Your task to perform on an android device: uninstall "NewsBreak: Local News & Alerts" Image 0: 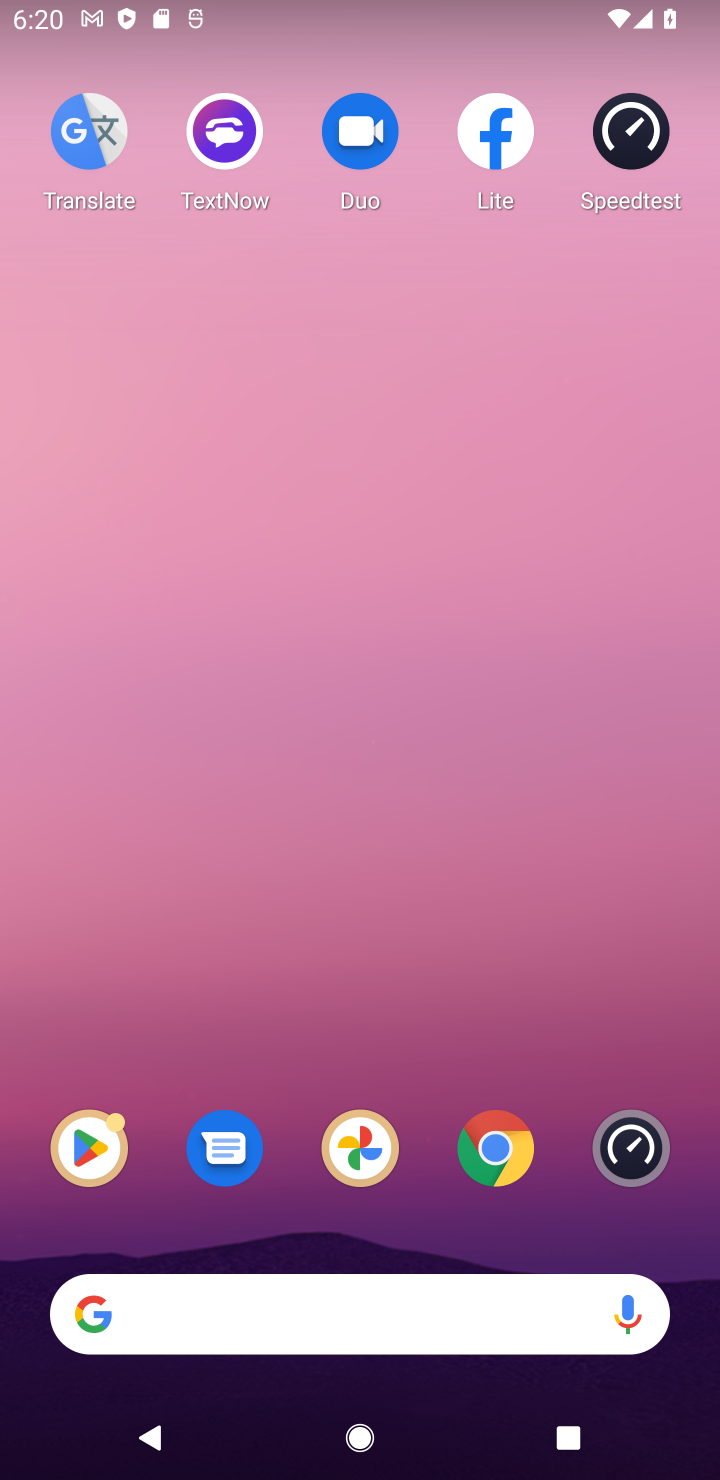
Step 0: drag from (611, 1073) to (319, 127)
Your task to perform on an android device: uninstall "NewsBreak: Local News & Alerts" Image 1: 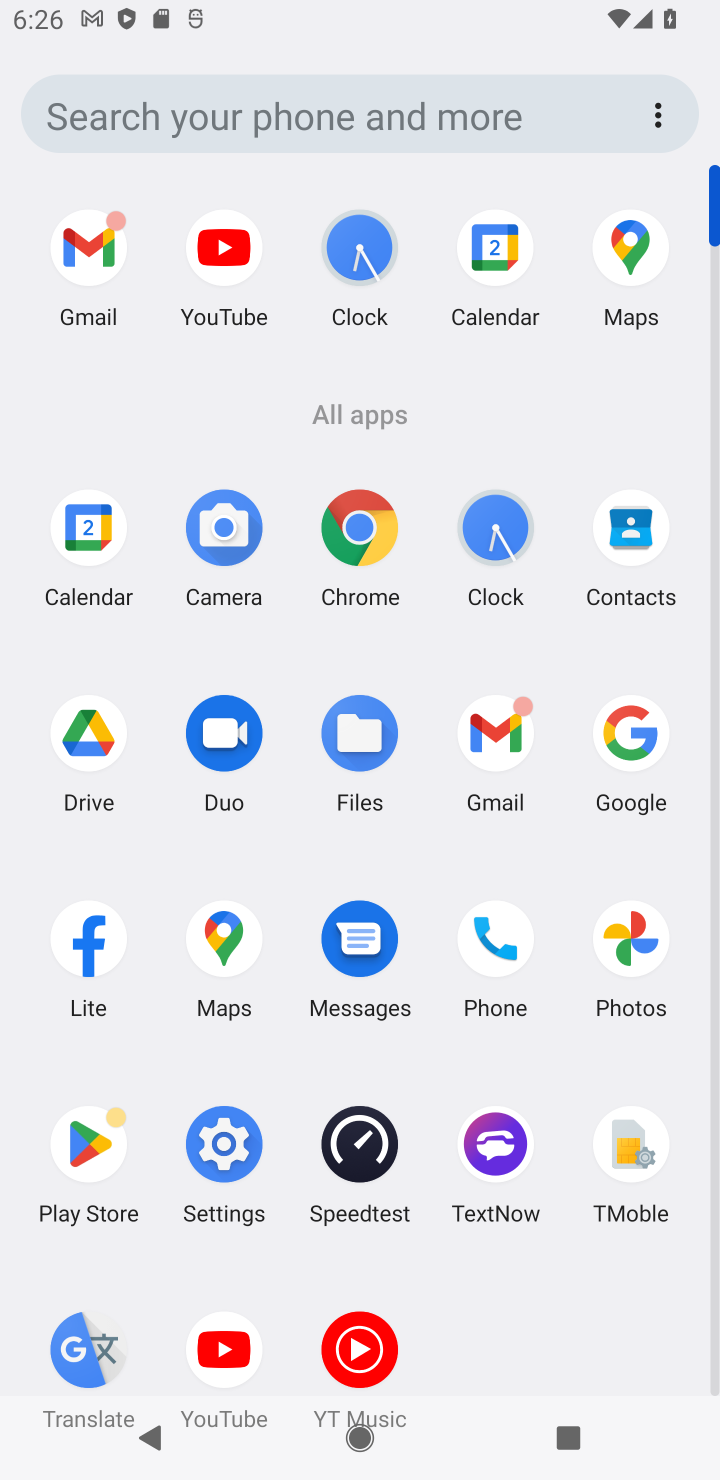
Step 1: click (78, 1129)
Your task to perform on an android device: uninstall "NewsBreak: Local News & Alerts" Image 2: 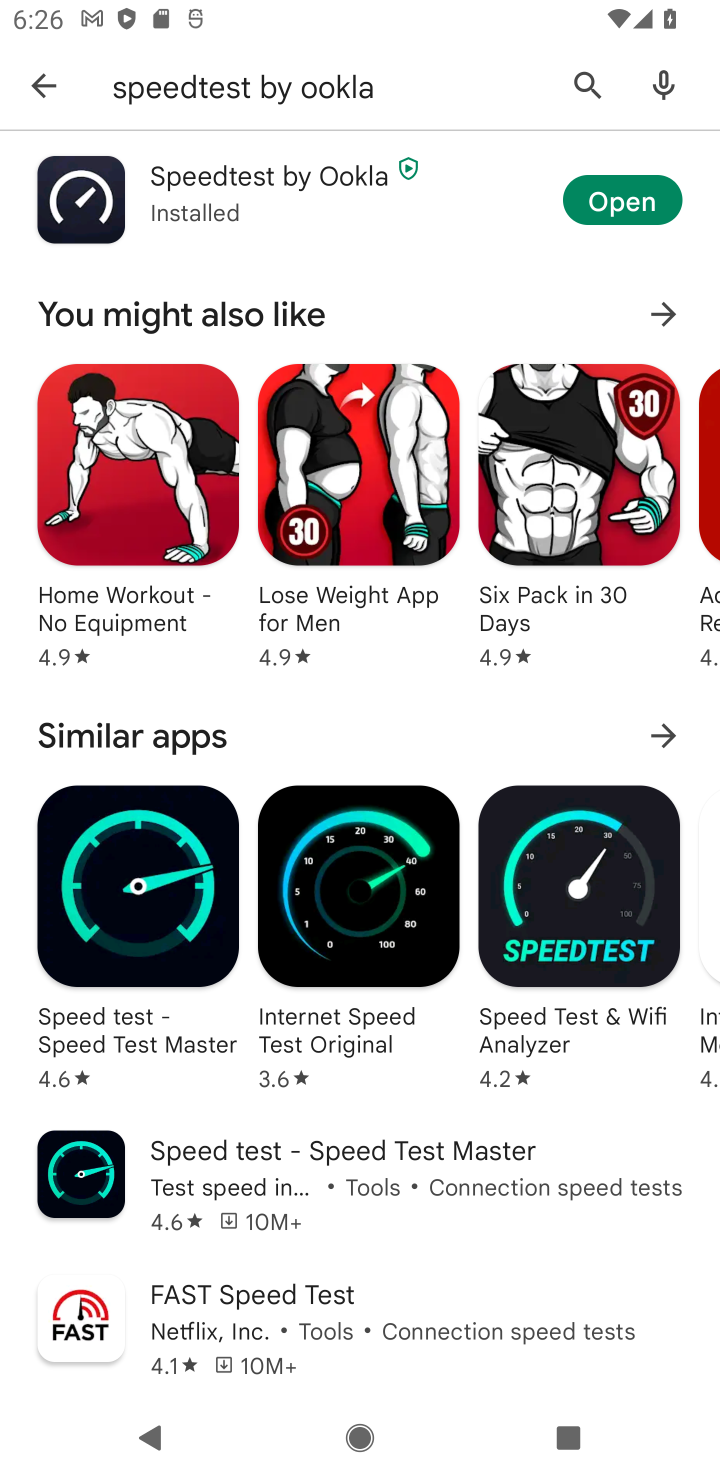
Step 2: press back button
Your task to perform on an android device: uninstall "NewsBreak: Local News & Alerts" Image 3: 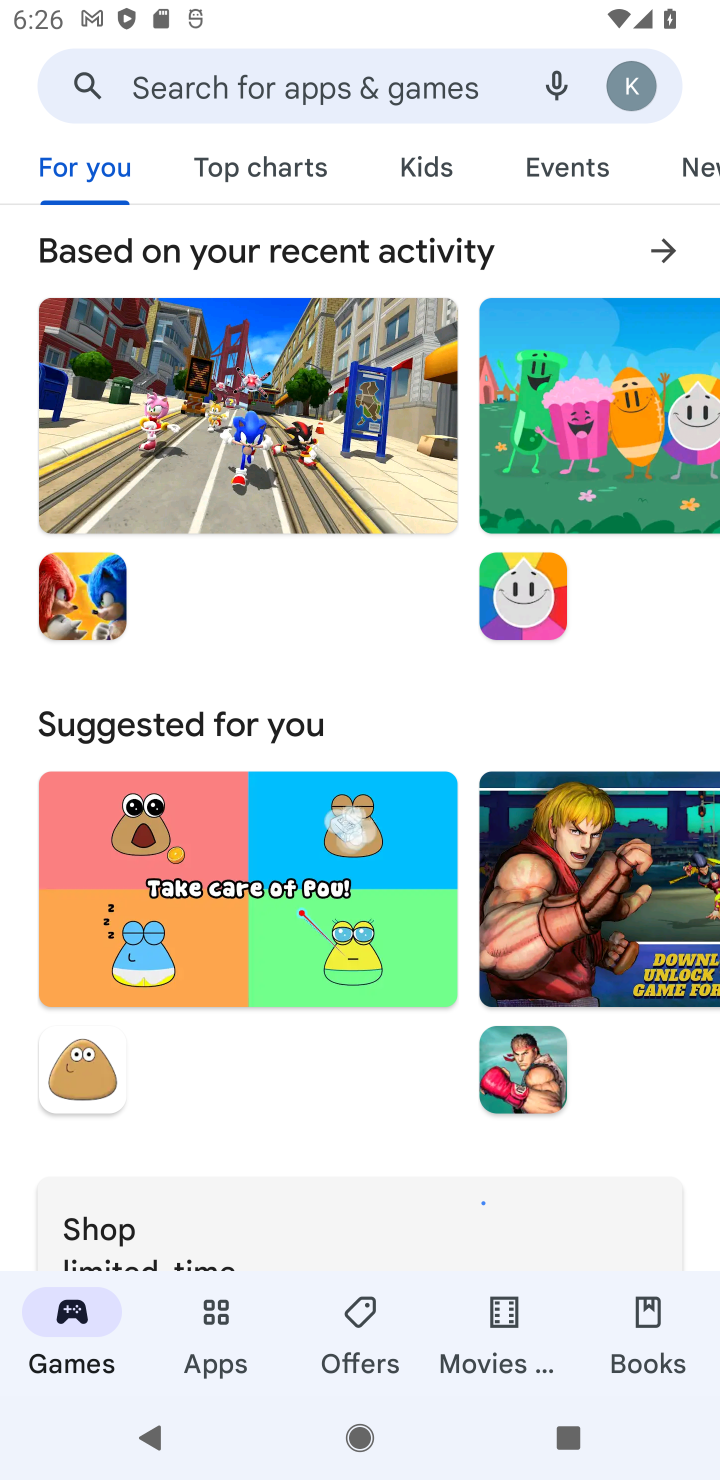
Step 3: click (256, 98)
Your task to perform on an android device: uninstall "NewsBreak: Local News & Alerts" Image 4: 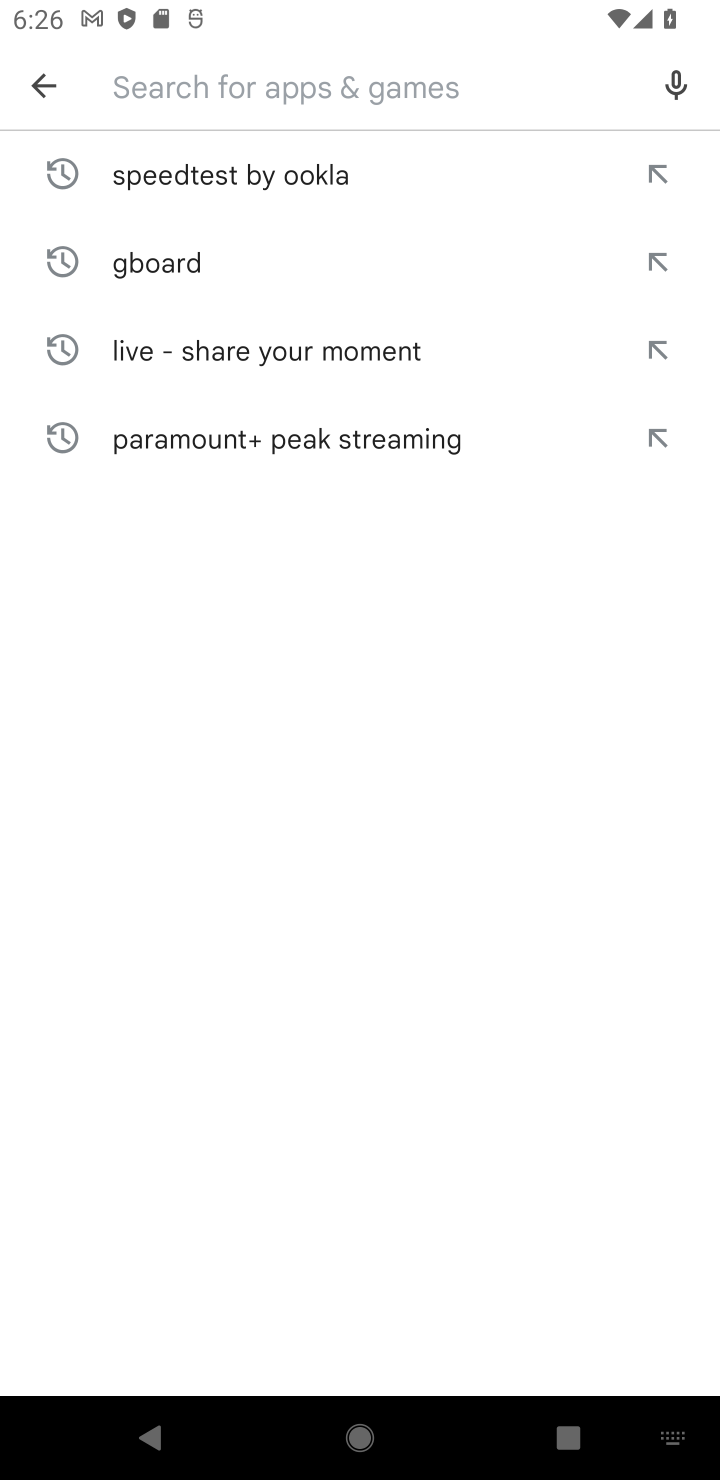
Step 4: type "NewsBreak: Local News & Alerts"
Your task to perform on an android device: uninstall "NewsBreak: Local News & Alerts" Image 5: 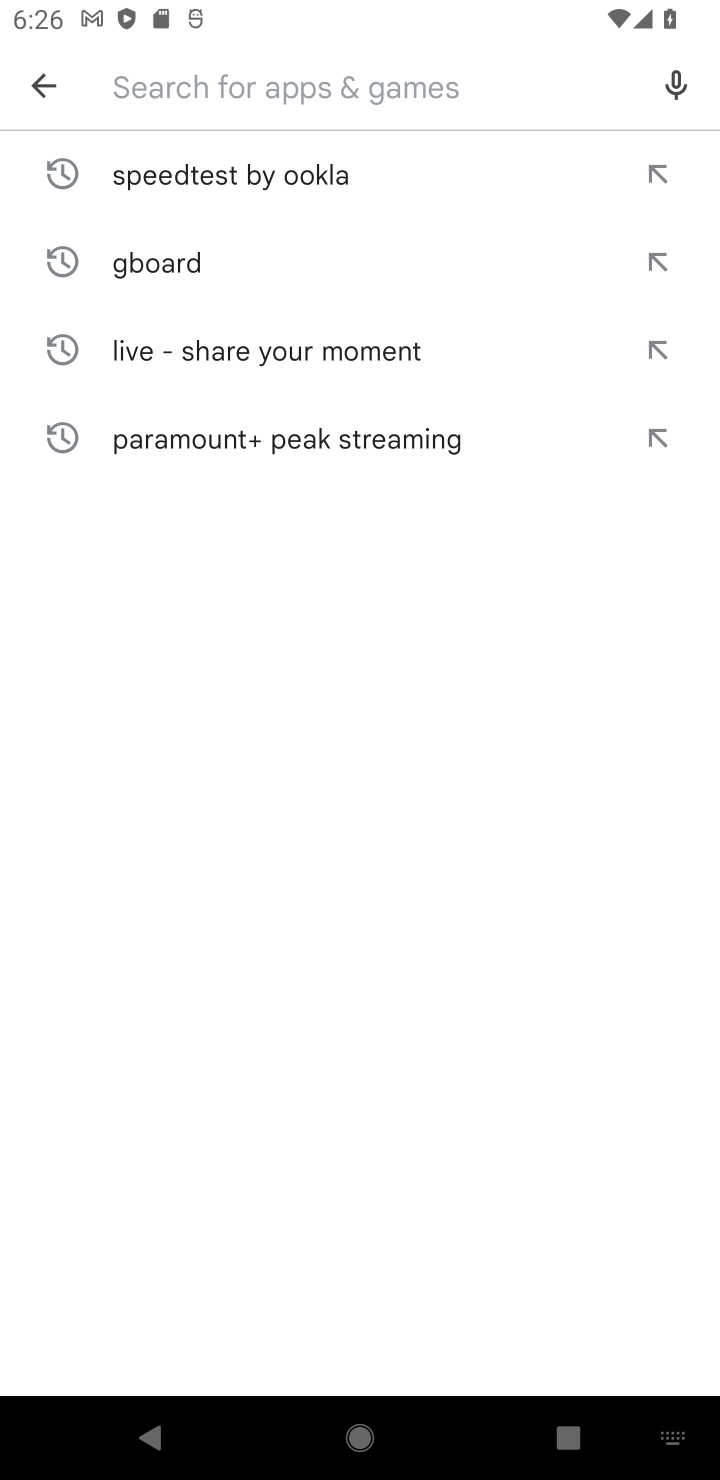
Step 5: click (298, 188)
Your task to perform on an android device: uninstall "NewsBreak: Local News & Alerts" Image 6: 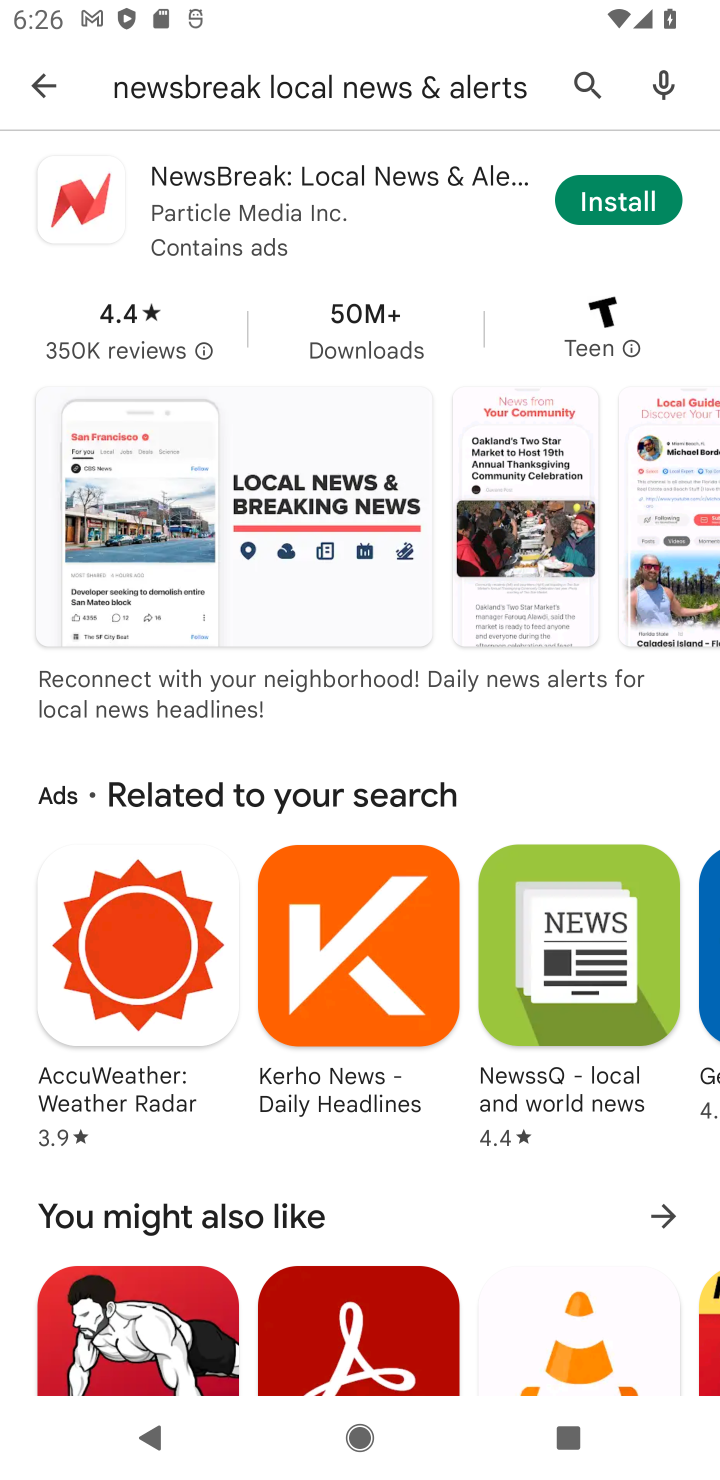
Step 6: task complete